Your task to perform on an android device: Go to accessibility settings Image 0: 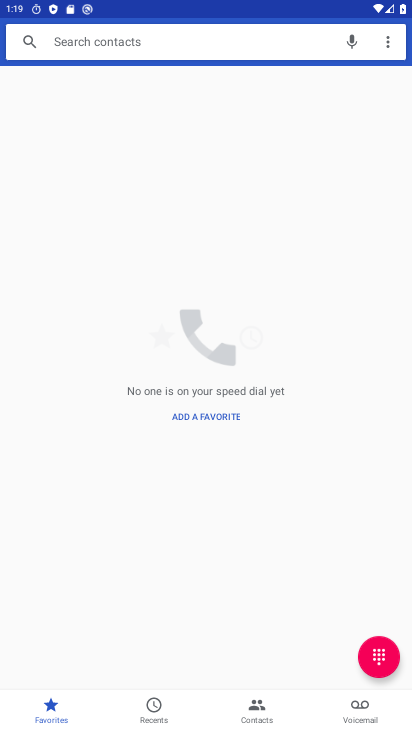
Step 0: press home button
Your task to perform on an android device: Go to accessibility settings Image 1: 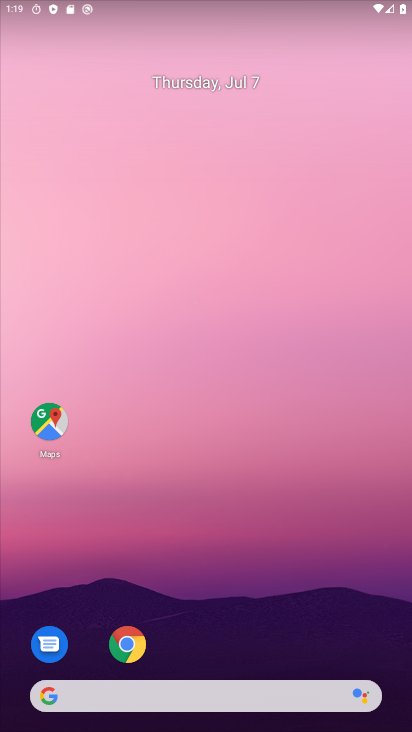
Step 1: drag from (207, 706) to (206, 45)
Your task to perform on an android device: Go to accessibility settings Image 2: 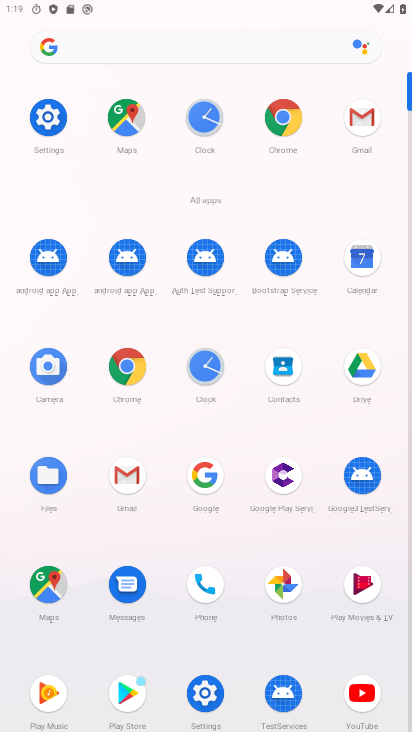
Step 2: click (45, 116)
Your task to perform on an android device: Go to accessibility settings Image 3: 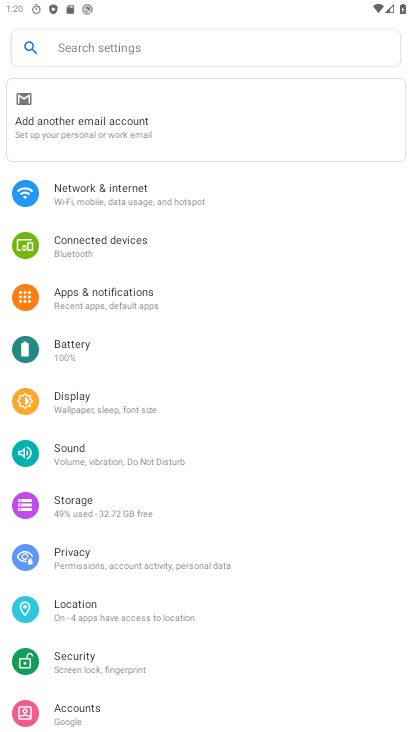
Step 3: drag from (217, 542) to (207, 235)
Your task to perform on an android device: Go to accessibility settings Image 4: 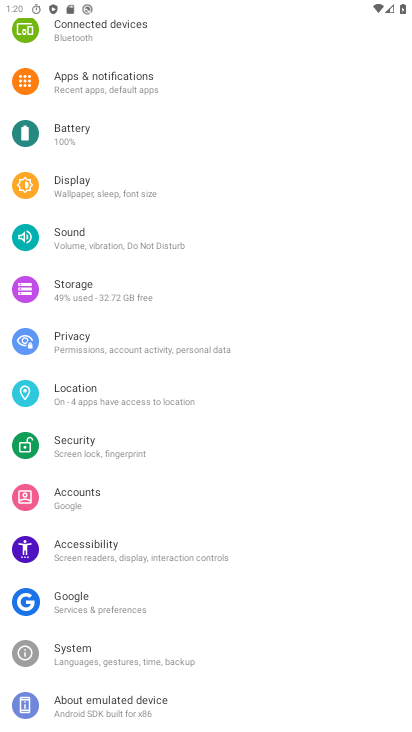
Step 4: click (109, 552)
Your task to perform on an android device: Go to accessibility settings Image 5: 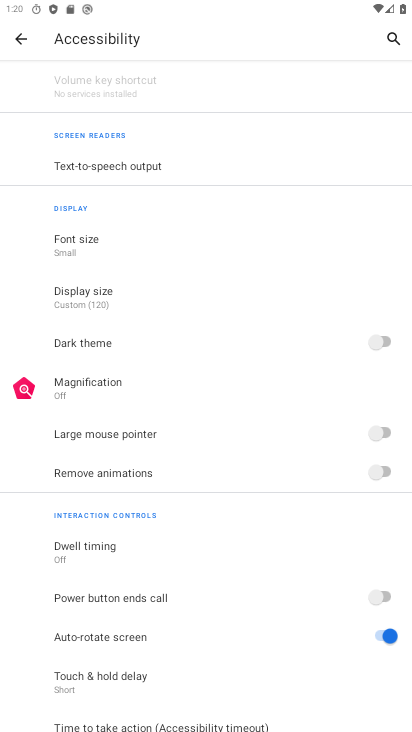
Step 5: task complete